Your task to perform on an android device: Search for "duracell triple a" on amazon, select the first entry, add it to the cart, then select checkout. Image 0: 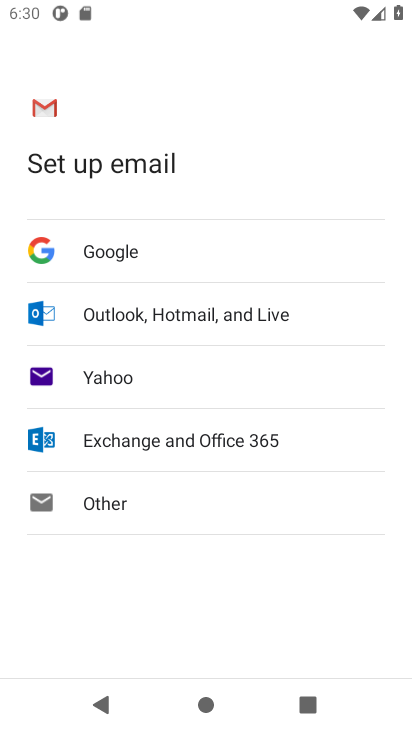
Step 0: press home button
Your task to perform on an android device: Search for "duracell triple a" on amazon, select the first entry, add it to the cart, then select checkout. Image 1: 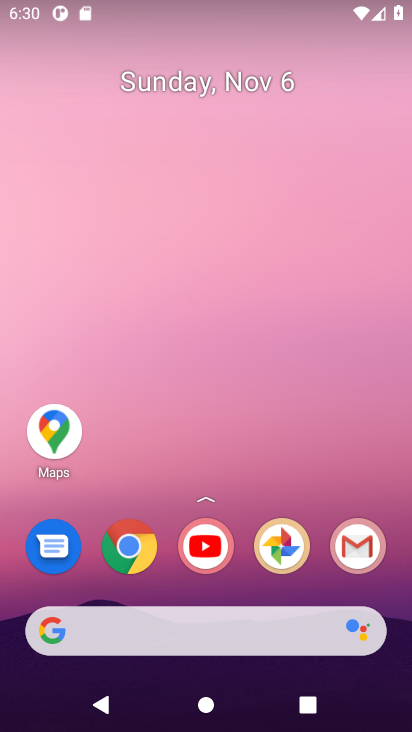
Step 1: click (129, 553)
Your task to perform on an android device: Search for "duracell triple a" on amazon, select the first entry, add it to the cart, then select checkout. Image 2: 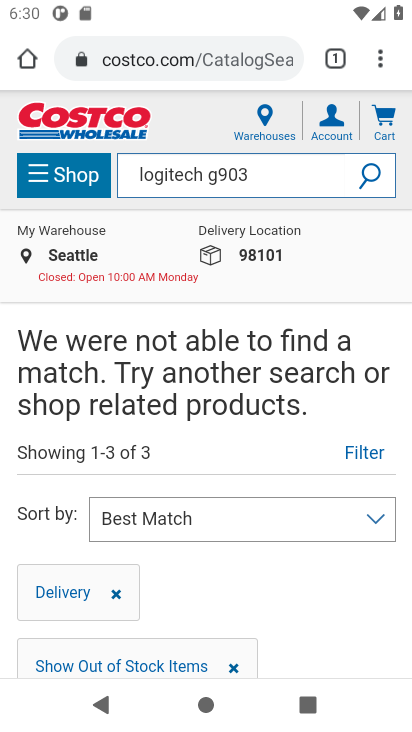
Step 2: click (164, 53)
Your task to perform on an android device: Search for "duracell triple a" on amazon, select the first entry, add it to the cart, then select checkout. Image 3: 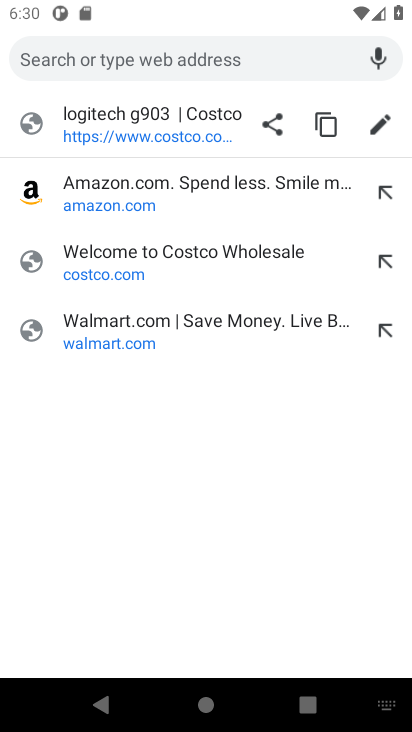
Step 3: click (110, 201)
Your task to perform on an android device: Search for "duracell triple a" on amazon, select the first entry, add it to the cart, then select checkout. Image 4: 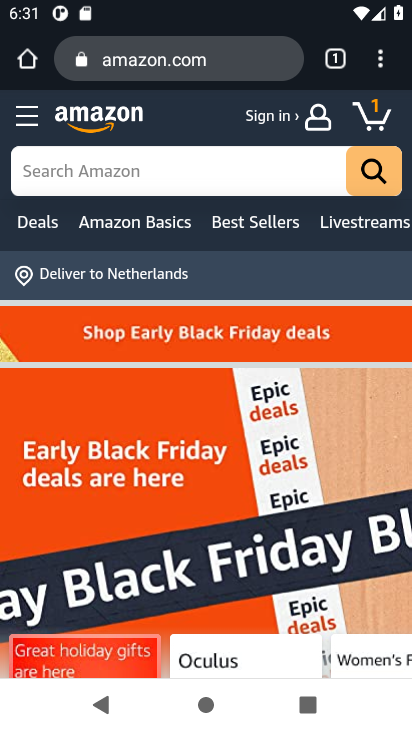
Step 4: click (143, 186)
Your task to perform on an android device: Search for "duracell triple a" on amazon, select the first entry, add it to the cart, then select checkout. Image 5: 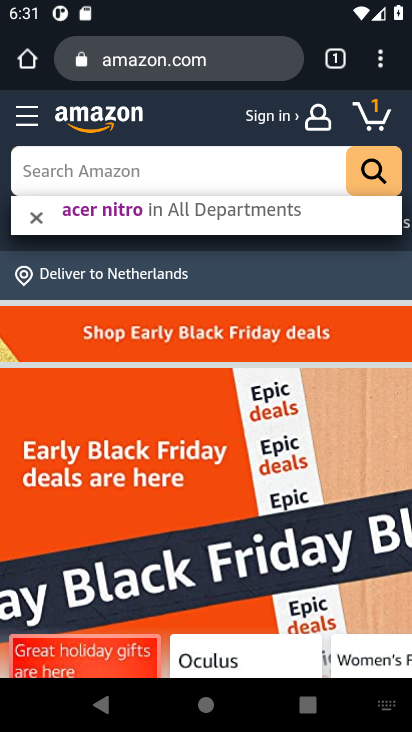
Step 5: type "duracell triple a"
Your task to perform on an android device: Search for "duracell triple a" on amazon, select the first entry, add it to the cart, then select checkout. Image 6: 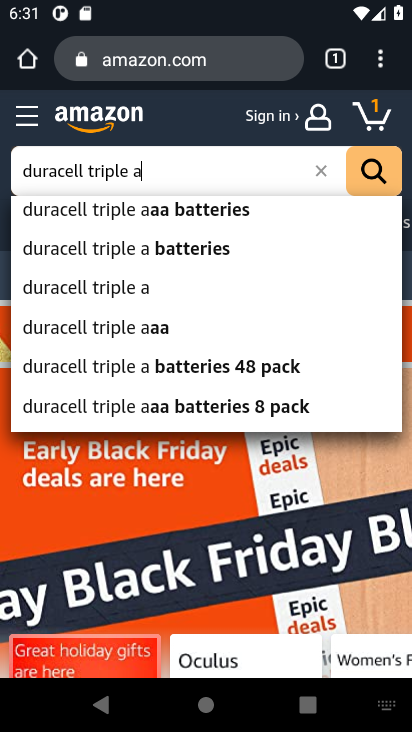
Step 6: click (89, 292)
Your task to perform on an android device: Search for "duracell triple a" on amazon, select the first entry, add it to the cart, then select checkout. Image 7: 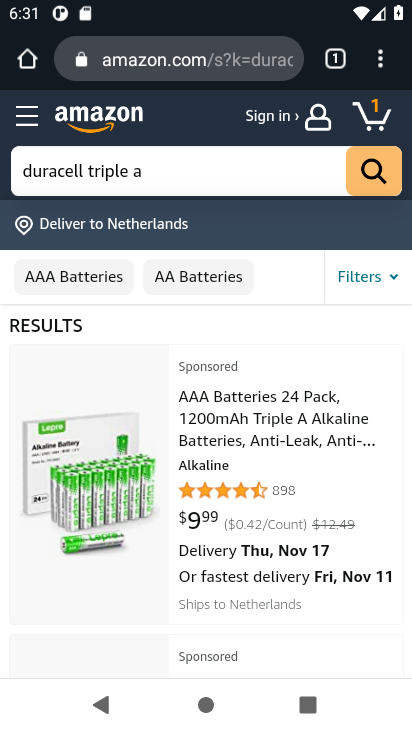
Step 7: task complete